Your task to perform on an android device: Open maps Image 0: 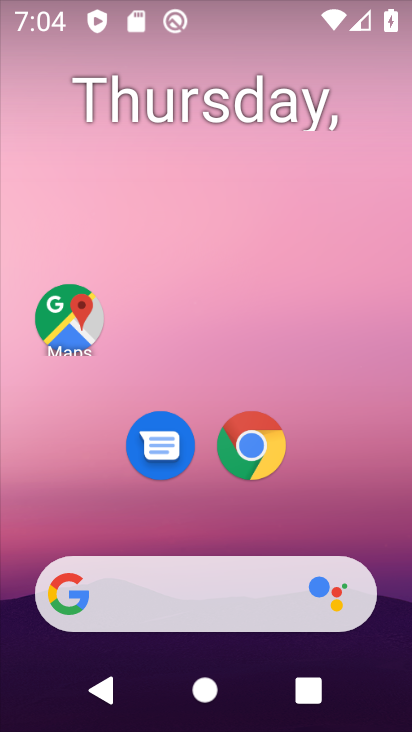
Step 0: click (56, 315)
Your task to perform on an android device: Open maps Image 1: 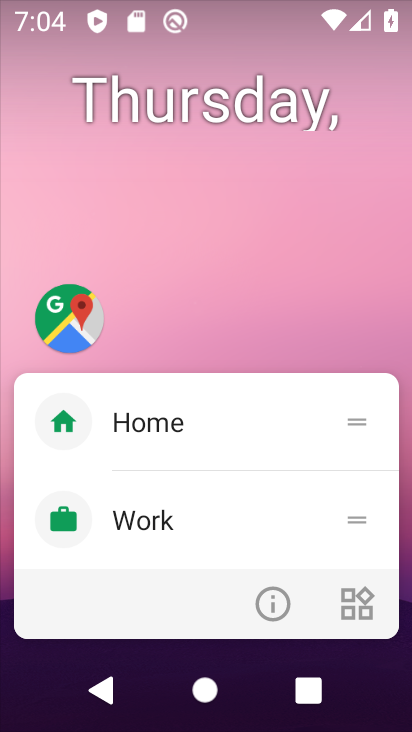
Step 1: click (98, 521)
Your task to perform on an android device: Open maps Image 2: 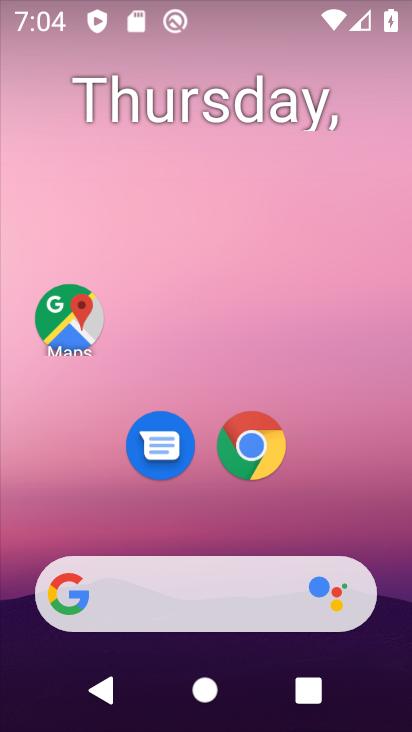
Step 2: click (67, 316)
Your task to perform on an android device: Open maps Image 3: 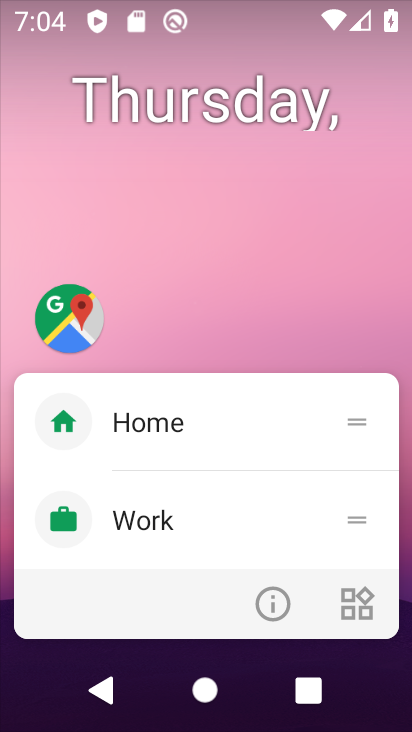
Step 3: click (75, 305)
Your task to perform on an android device: Open maps Image 4: 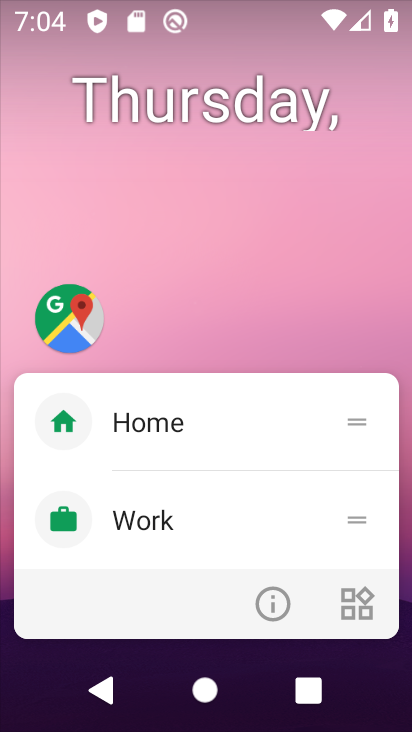
Step 4: click (75, 315)
Your task to perform on an android device: Open maps Image 5: 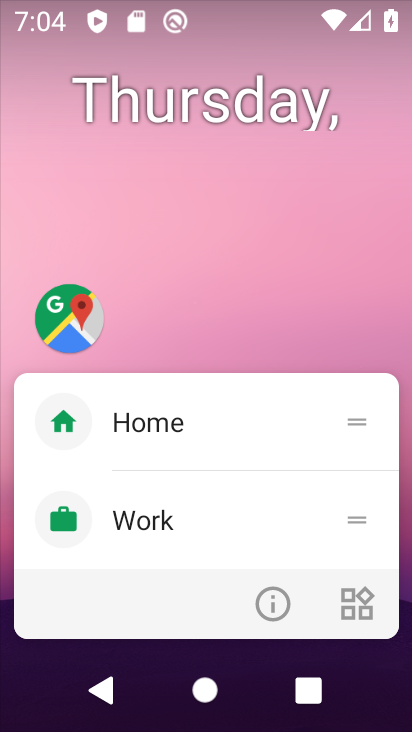
Step 5: click (78, 316)
Your task to perform on an android device: Open maps Image 6: 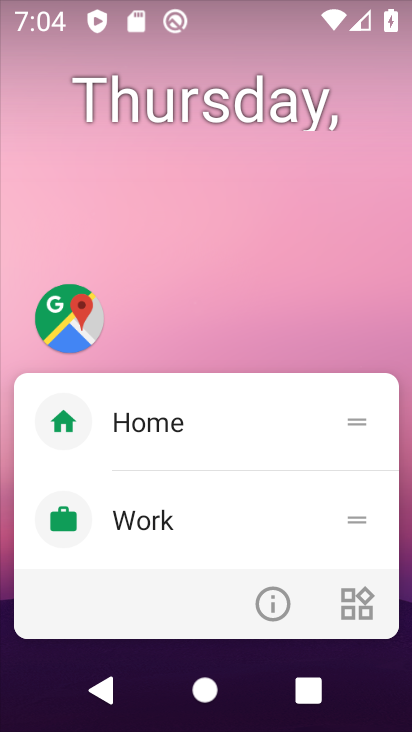
Step 6: click (134, 515)
Your task to perform on an android device: Open maps Image 7: 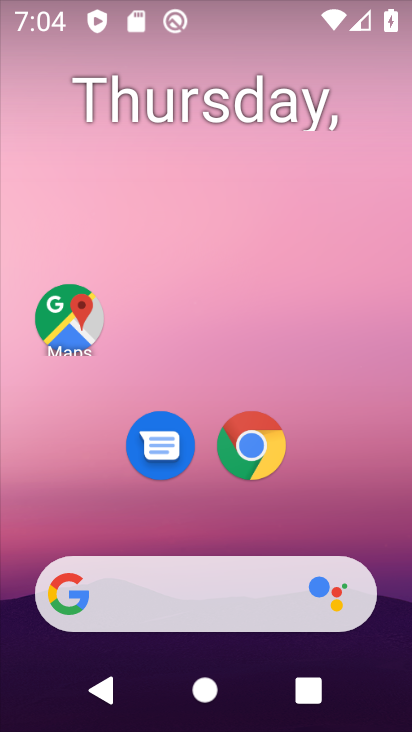
Step 7: click (64, 320)
Your task to perform on an android device: Open maps Image 8: 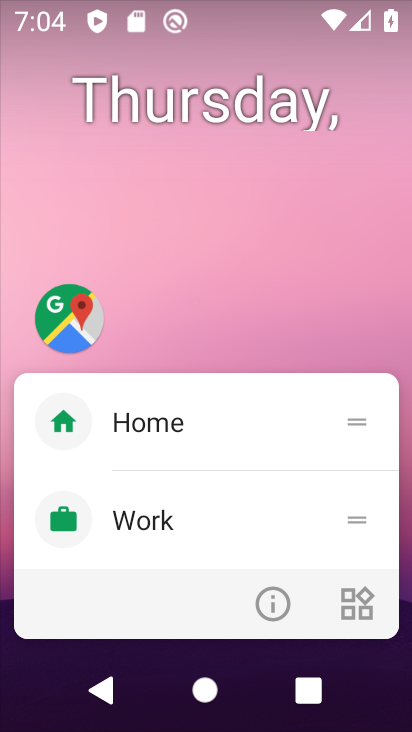
Step 8: click (149, 424)
Your task to perform on an android device: Open maps Image 9: 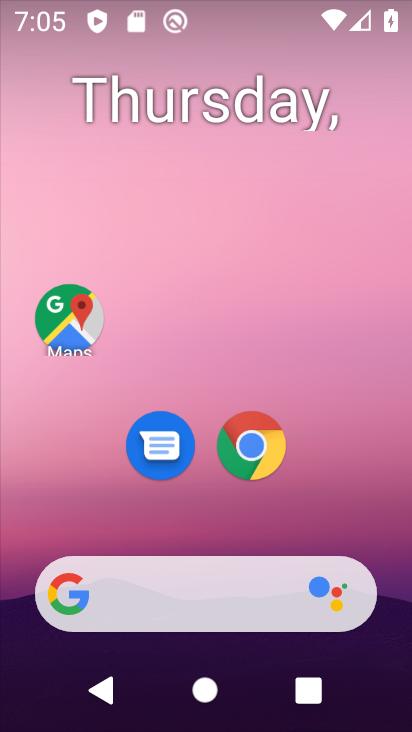
Step 9: click (37, 305)
Your task to perform on an android device: Open maps Image 10: 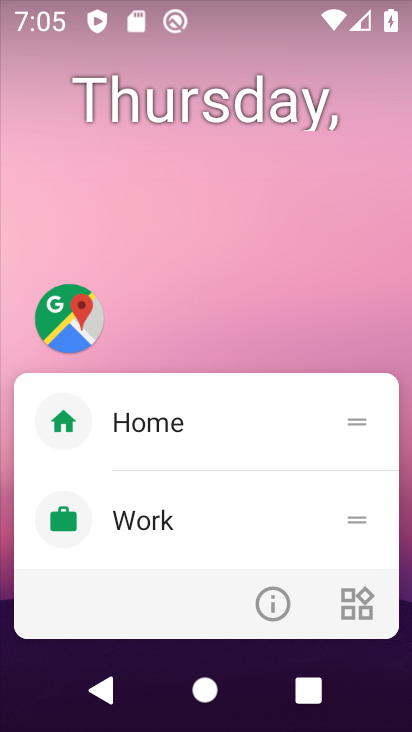
Step 10: click (125, 526)
Your task to perform on an android device: Open maps Image 11: 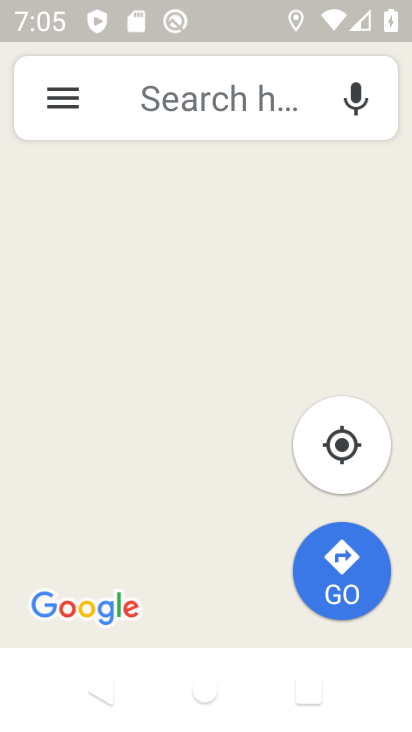
Step 11: task complete